Your task to perform on an android device: Open location settings Image 0: 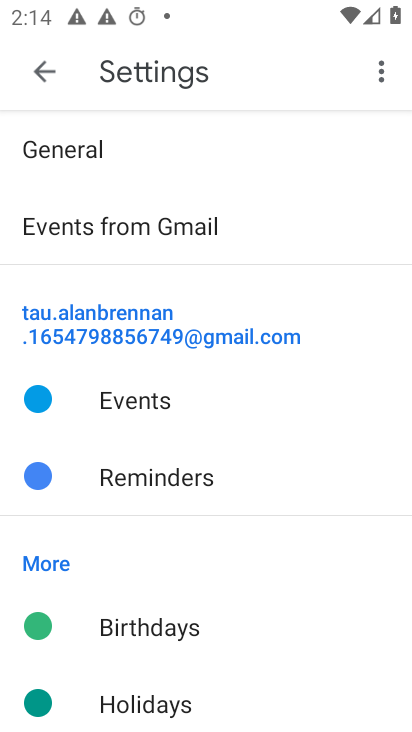
Step 0: press home button
Your task to perform on an android device: Open location settings Image 1: 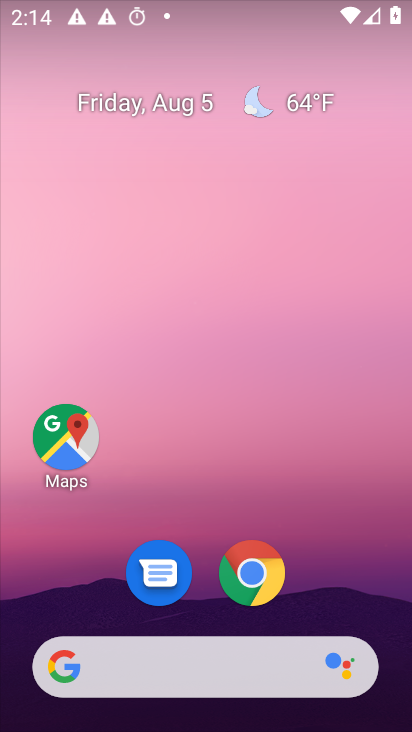
Step 1: drag from (327, 592) to (350, 206)
Your task to perform on an android device: Open location settings Image 2: 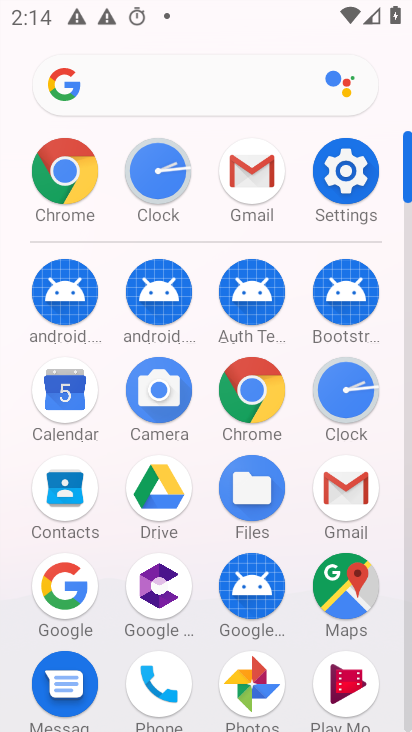
Step 2: click (344, 188)
Your task to perform on an android device: Open location settings Image 3: 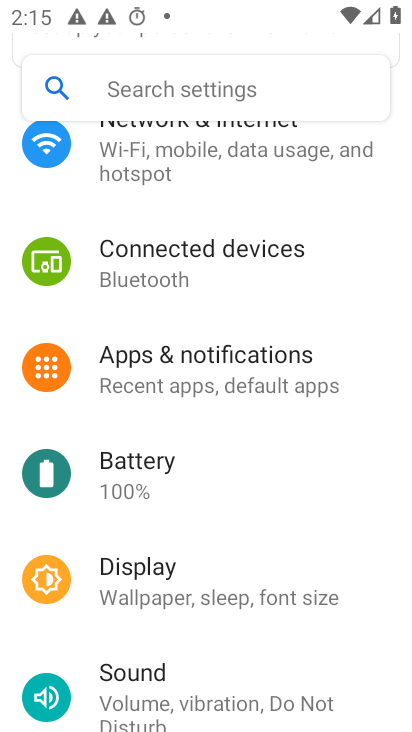
Step 3: drag from (359, 211) to (370, 488)
Your task to perform on an android device: Open location settings Image 4: 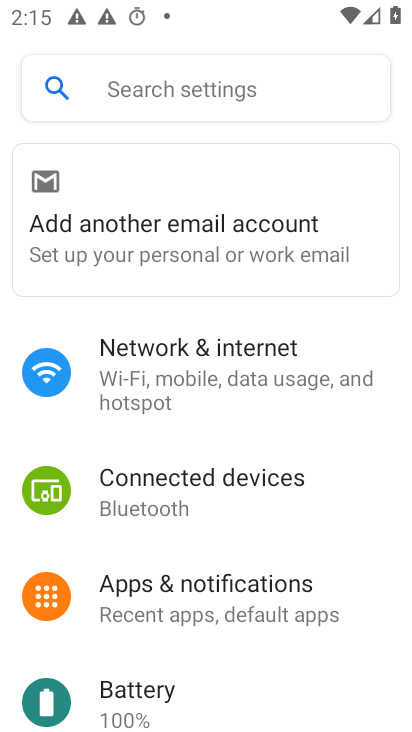
Step 4: drag from (371, 529) to (372, 424)
Your task to perform on an android device: Open location settings Image 5: 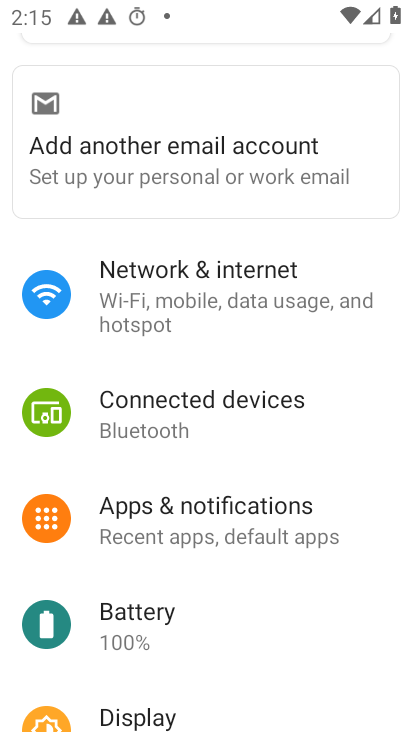
Step 5: drag from (356, 566) to (358, 466)
Your task to perform on an android device: Open location settings Image 6: 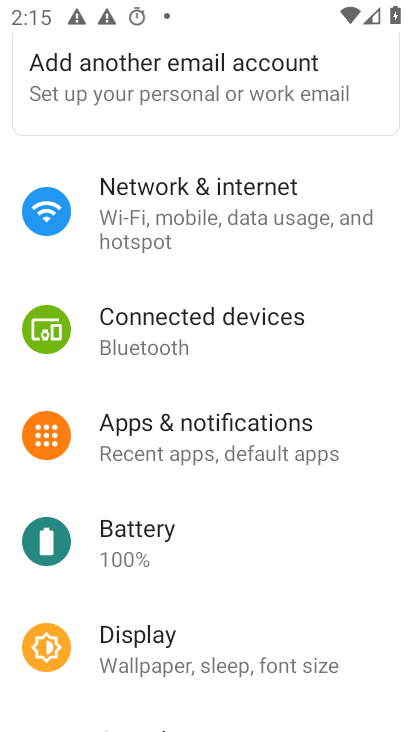
Step 6: drag from (347, 572) to (355, 460)
Your task to perform on an android device: Open location settings Image 7: 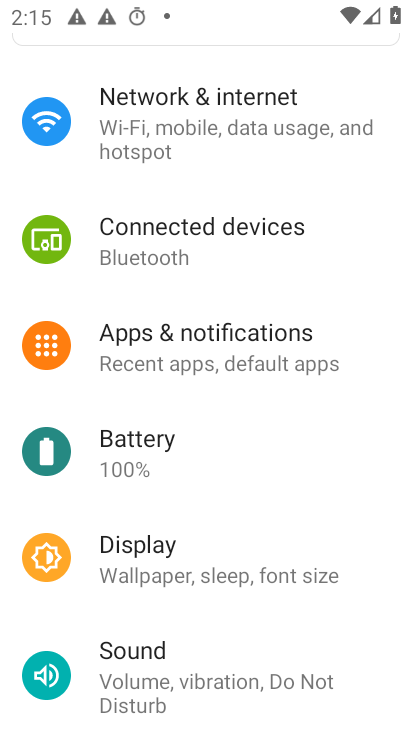
Step 7: drag from (358, 595) to (363, 488)
Your task to perform on an android device: Open location settings Image 8: 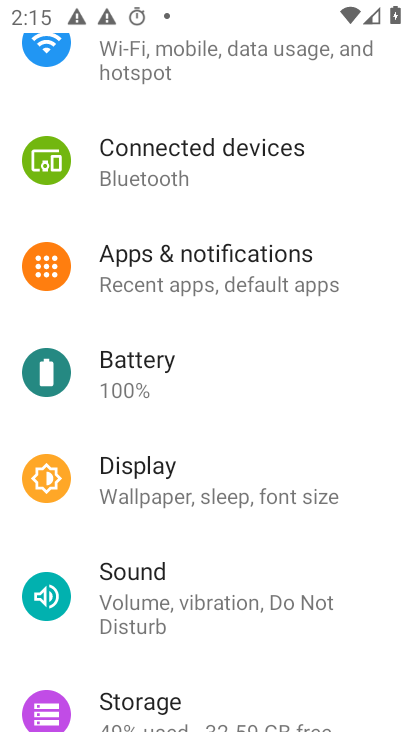
Step 8: drag from (364, 616) to (375, 507)
Your task to perform on an android device: Open location settings Image 9: 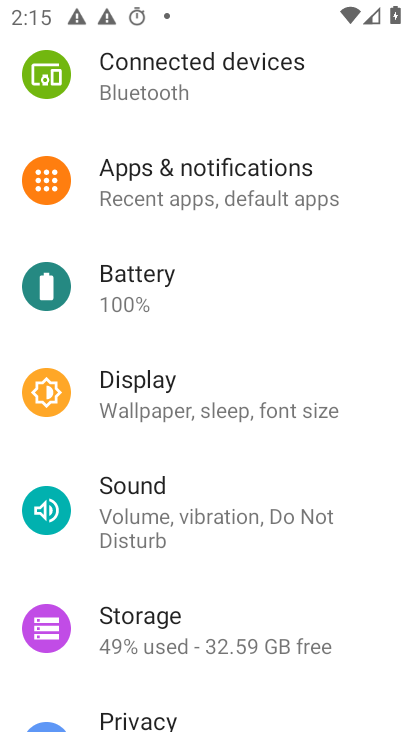
Step 9: drag from (375, 613) to (371, 506)
Your task to perform on an android device: Open location settings Image 10: 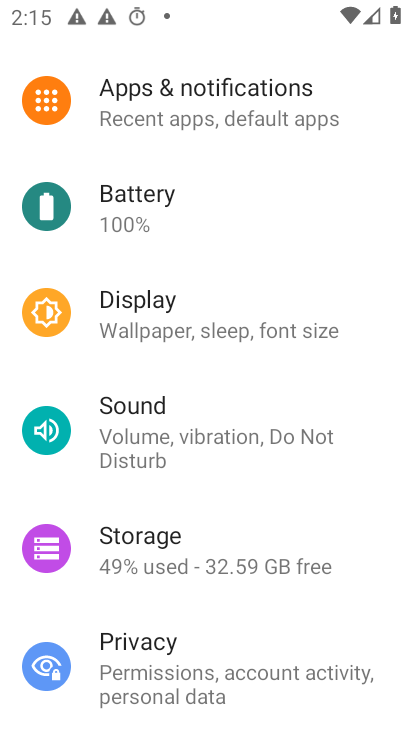
Step 10: drag from (359, 625) to (367, 504)
Your task to perform on an android device: Open location settings Image 11: 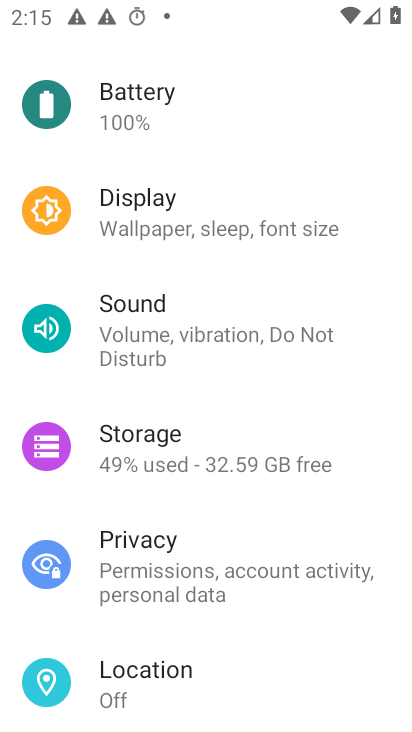
Step 11: drag from (344, 634) to (363, 487)
Your task to perform on an android device: Open location settings Image 12: 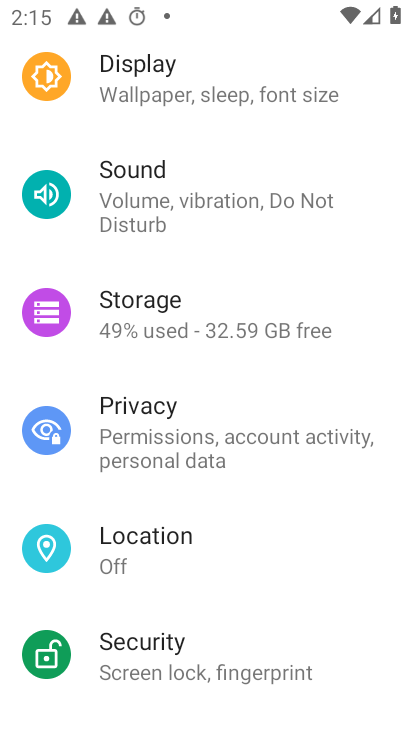
Step 12: drag from (360, 618) to (373, 468)
Your task to perform on an android device: Open location settings Image 13: 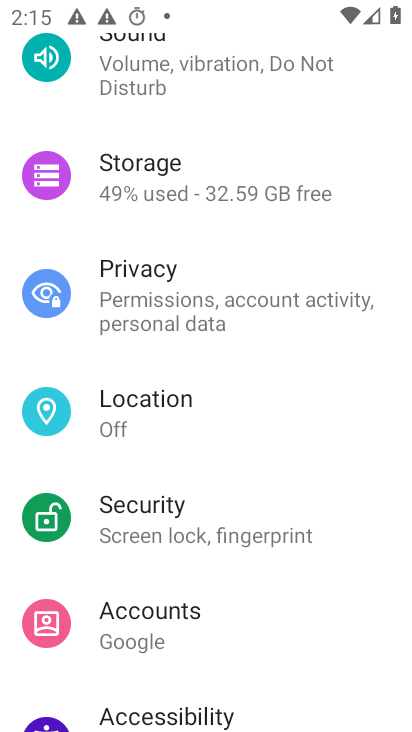
Step 13: drag from (352, 642) to (356, 473)
Your task to perform on an android device: Open location settings Image 14: 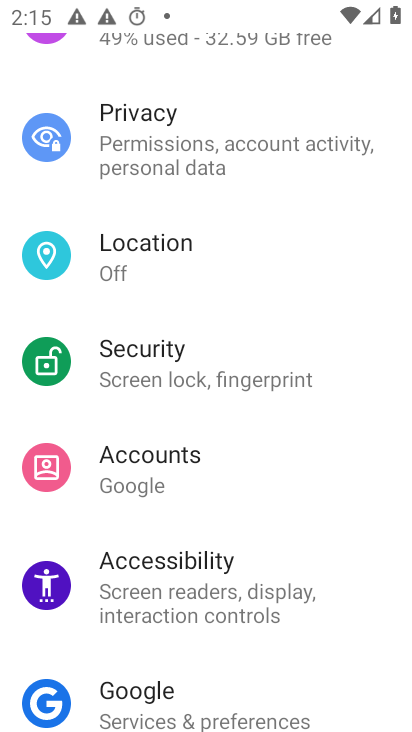
Step 14: click (138, 261)
Your task to perform on an android device: Open location settings Image 15: 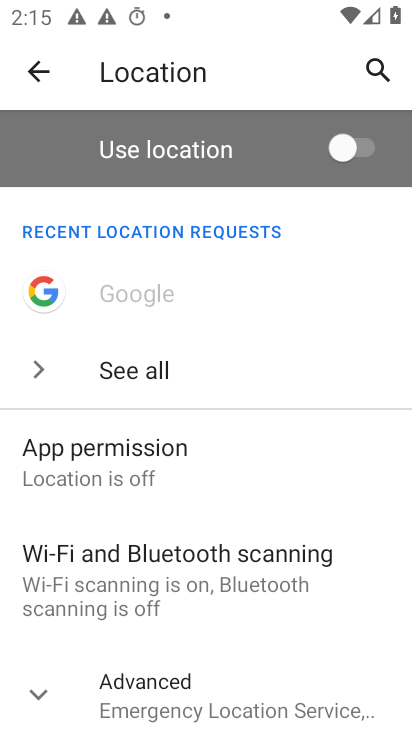
Step 15: task complete